Your task to perform on an android device: move an email to a new category in the gmail app Image 0: 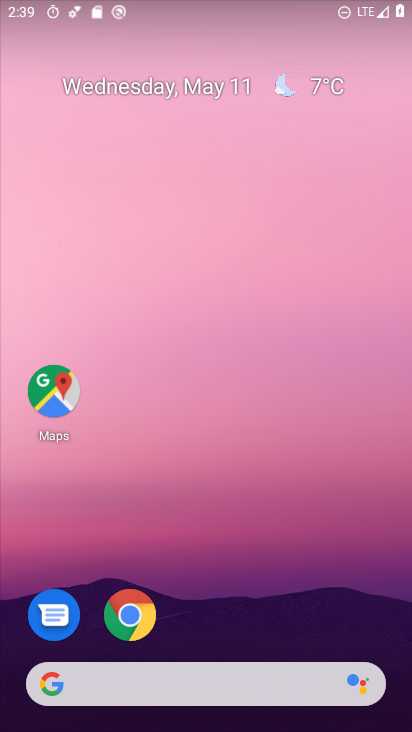
Step 0: drag from (200, 678) to (179, 223)
Your task to perform on an android device: move an email to a new category in the gmail app Image 1: 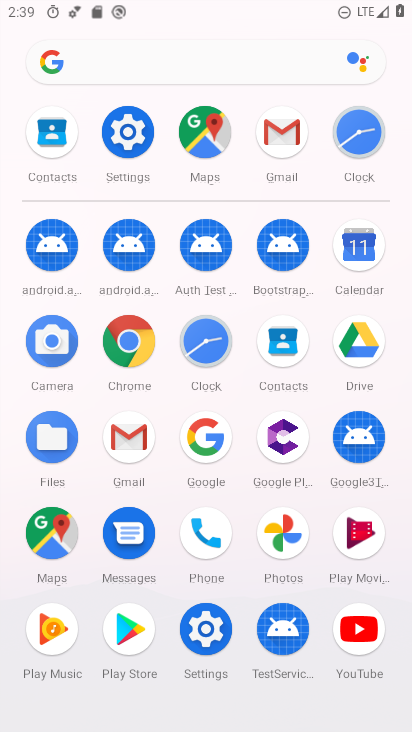
Step 1: click (311, 110)
Your task to perform on an android device: move an email to a new category in the gmail app Image 2: 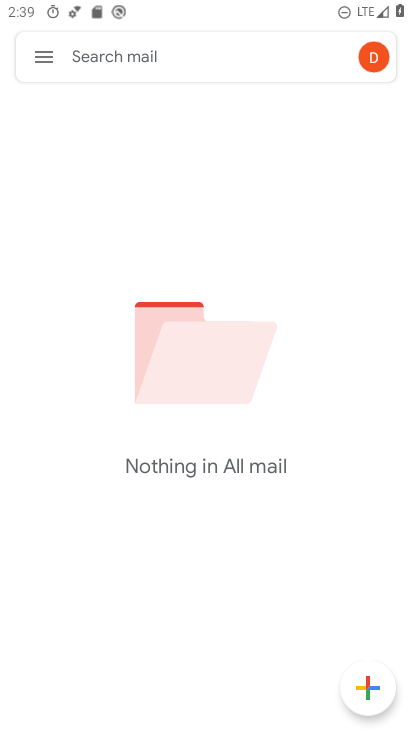
Step 2: click (47, 62)
Your task to perform on an android device: move an email to a new category in the gmail app Image 3: 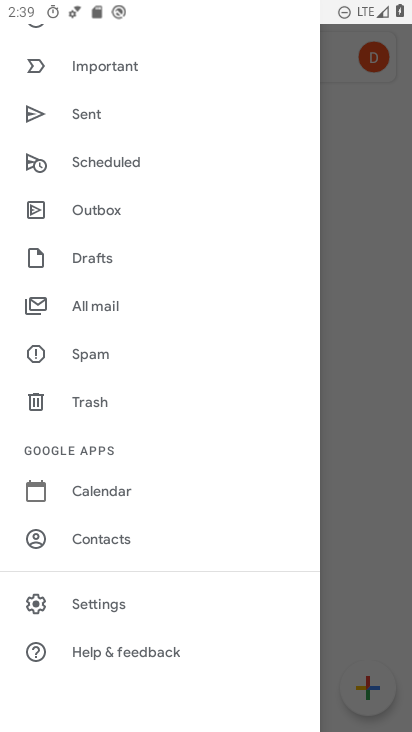
Step 3: click (89, 308)
Your task to perform on an android device: move an email to a new category in the gmail app Image 4: 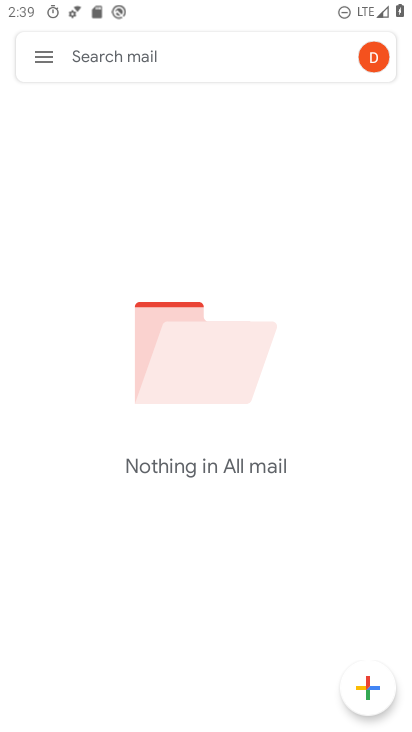
Step 4: task complete